Your task to perform on an android device: Clear the shopping cart on ebay.com. Add "asus zenbook" to the cart on ebay.com, then select checkout. Image 0: 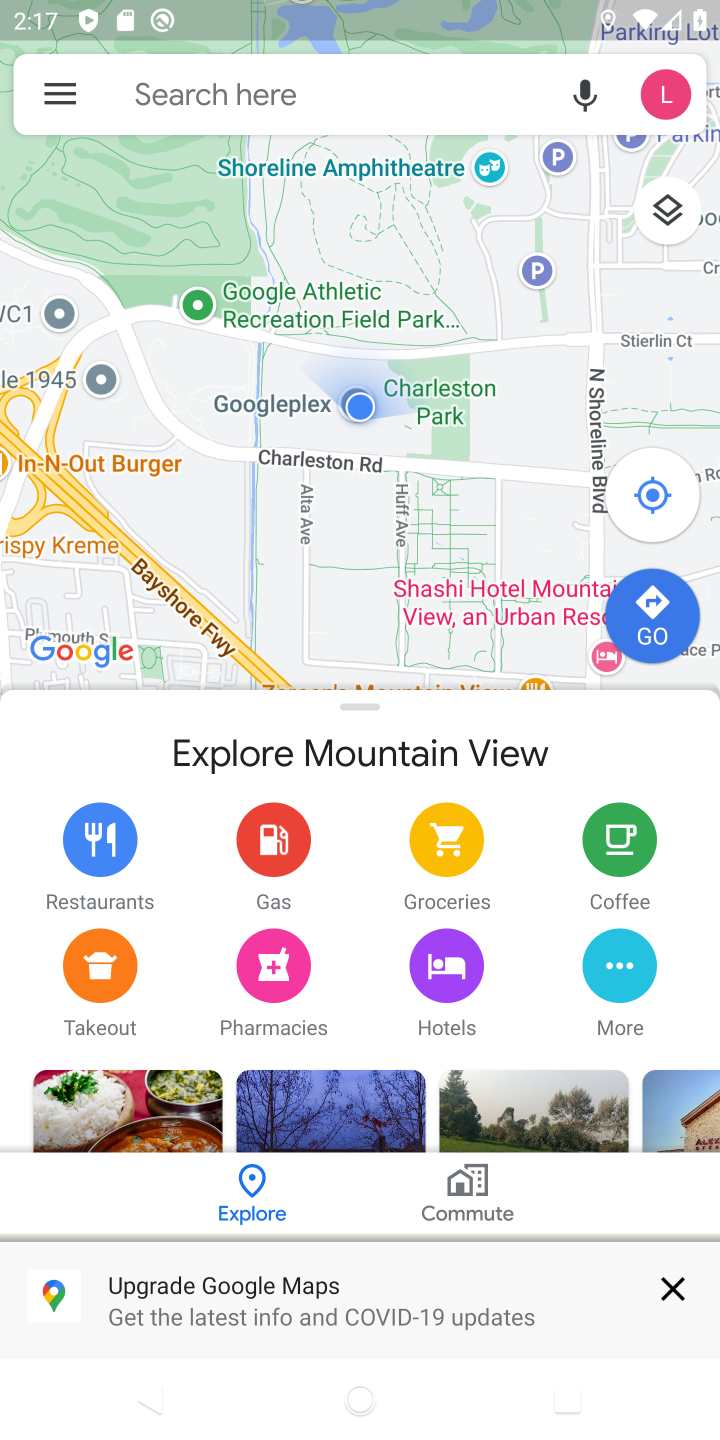
Step 0: press home button
Your task to perform on an android device: Clear the shopping cart on ebay.com. Add "asus zenbook" to the cart on ebay.com, then select checkout. Image 1: 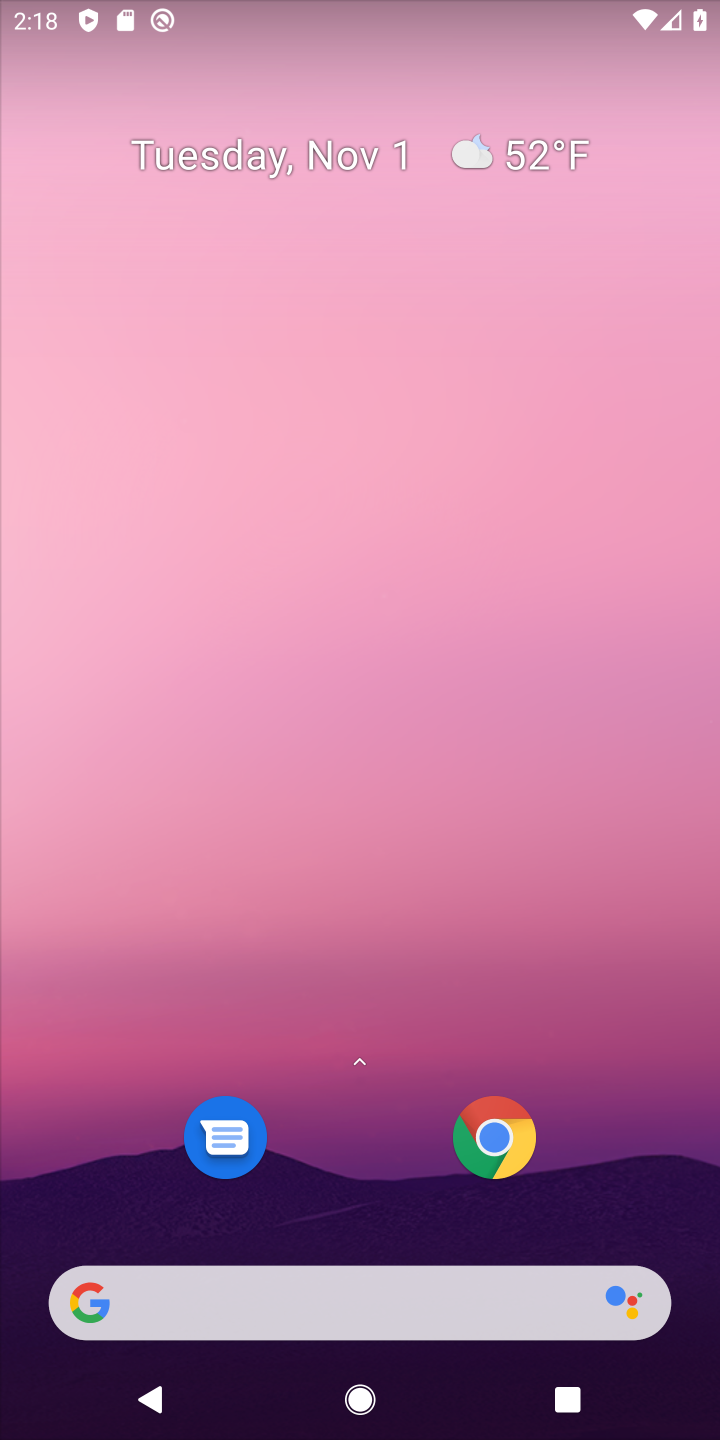
Step 1: click (310, 1316)
Your task to perform on an android device: Clear the shopping cart on ebay.com. Add "asus zenbook" to the cart on ebay.com, then select checkout. Image 2: 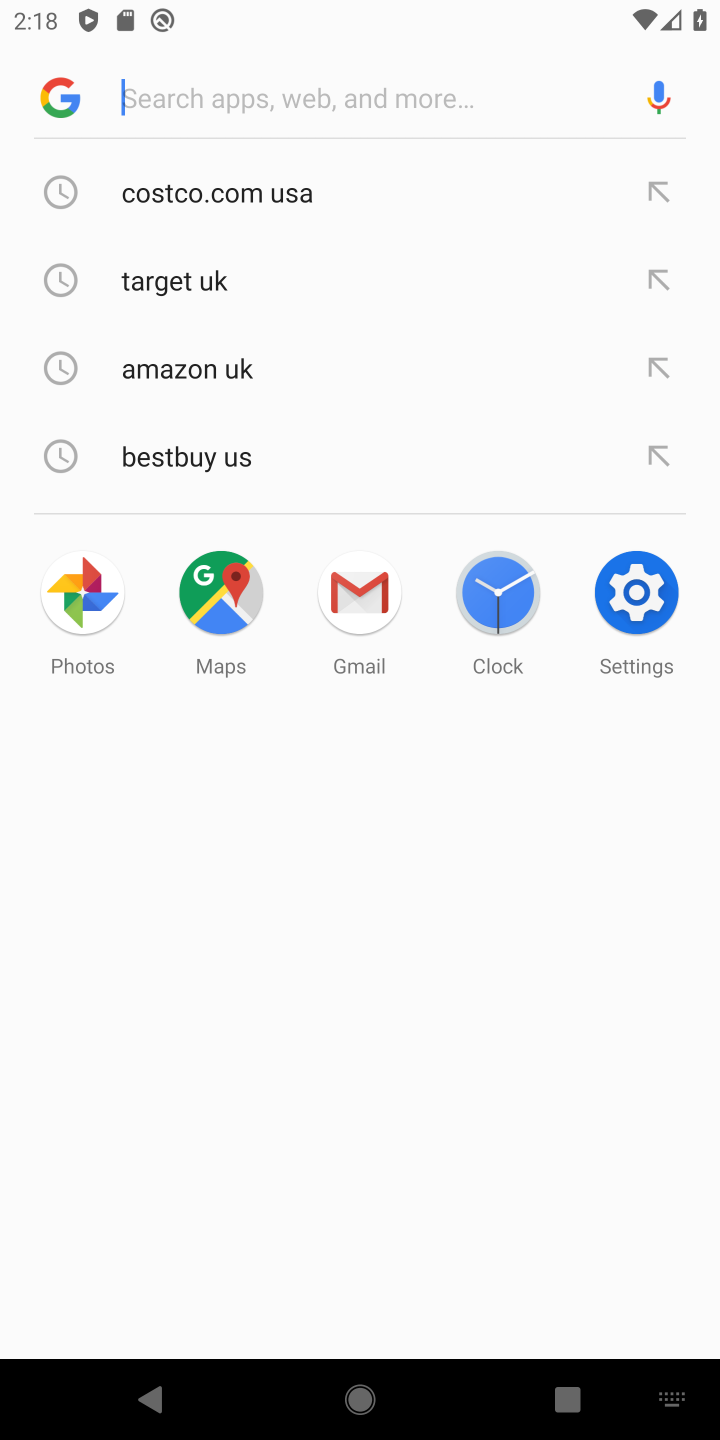
Step 2: type "asus zenbook"
Your task to perform on an android device: Clear the shopping cart on ebay.com. Add "asus zenbook" to the cart on ebay.com, then select checkout. Image 3: 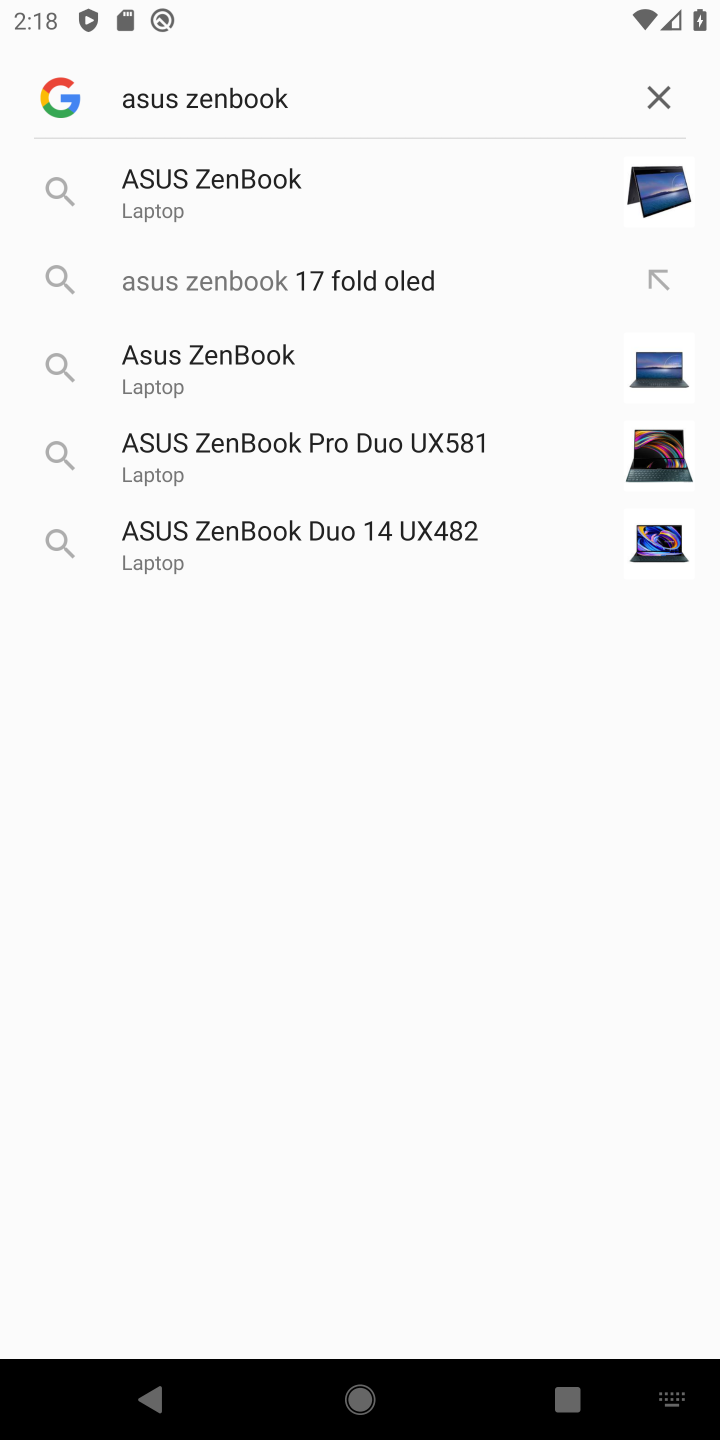
Step 3: click (271, 201)
Your task to perform on an android device: Clear the shopping cart on ebay.com. Add "asus zenbook" to the cart on ebay.com, then select checkout. Image 4: 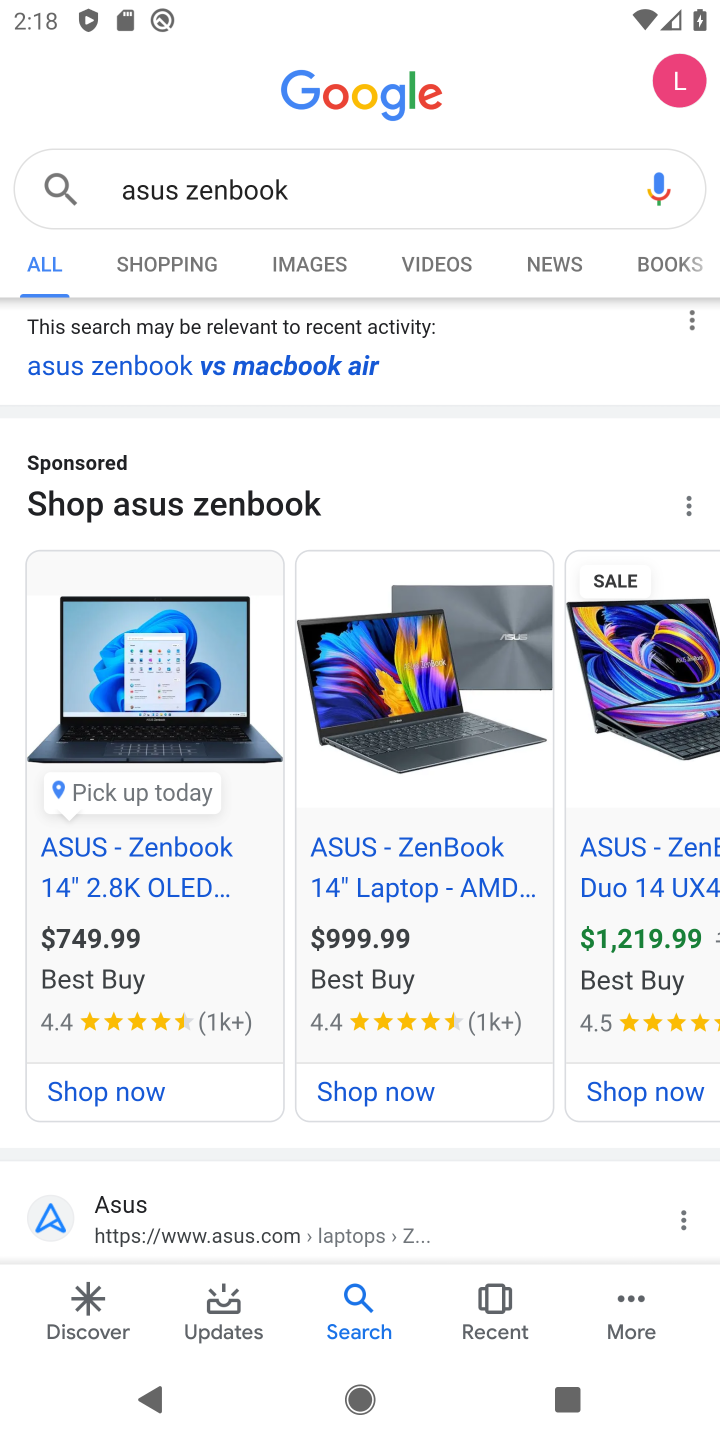
Step 4: drag from (384, 1196) to (376, 322)
Your task to perform on an android device: Clear the shopping cart on ebay.com. Add "asus zenbook" to the cart on ebay.com, then select checkout. Image 5: 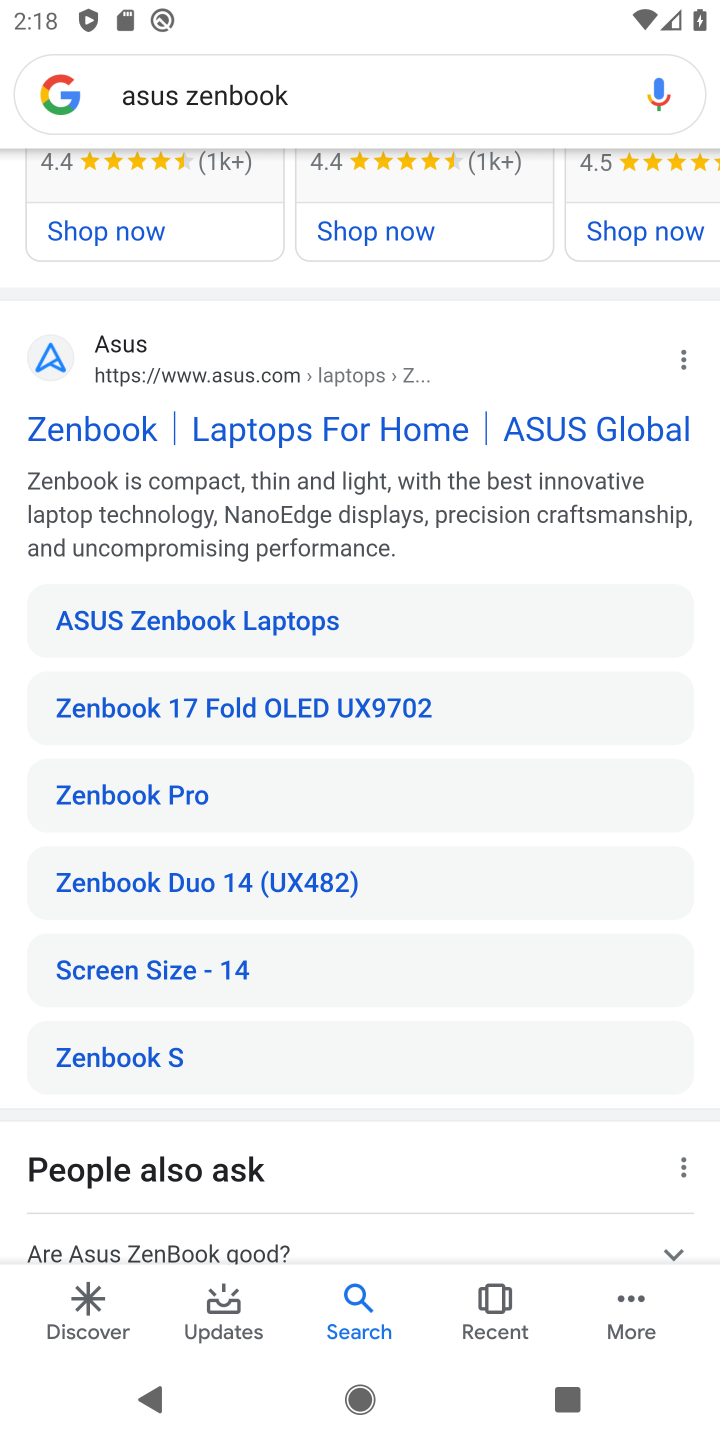
Step 5: drag from (437, 343) to (303, 707)
Your task to perform on an android device: Clear the shopping cart on ebay.com. Add "asus zenbook" to the cart on ebay.com, then select checkout. Image 6: 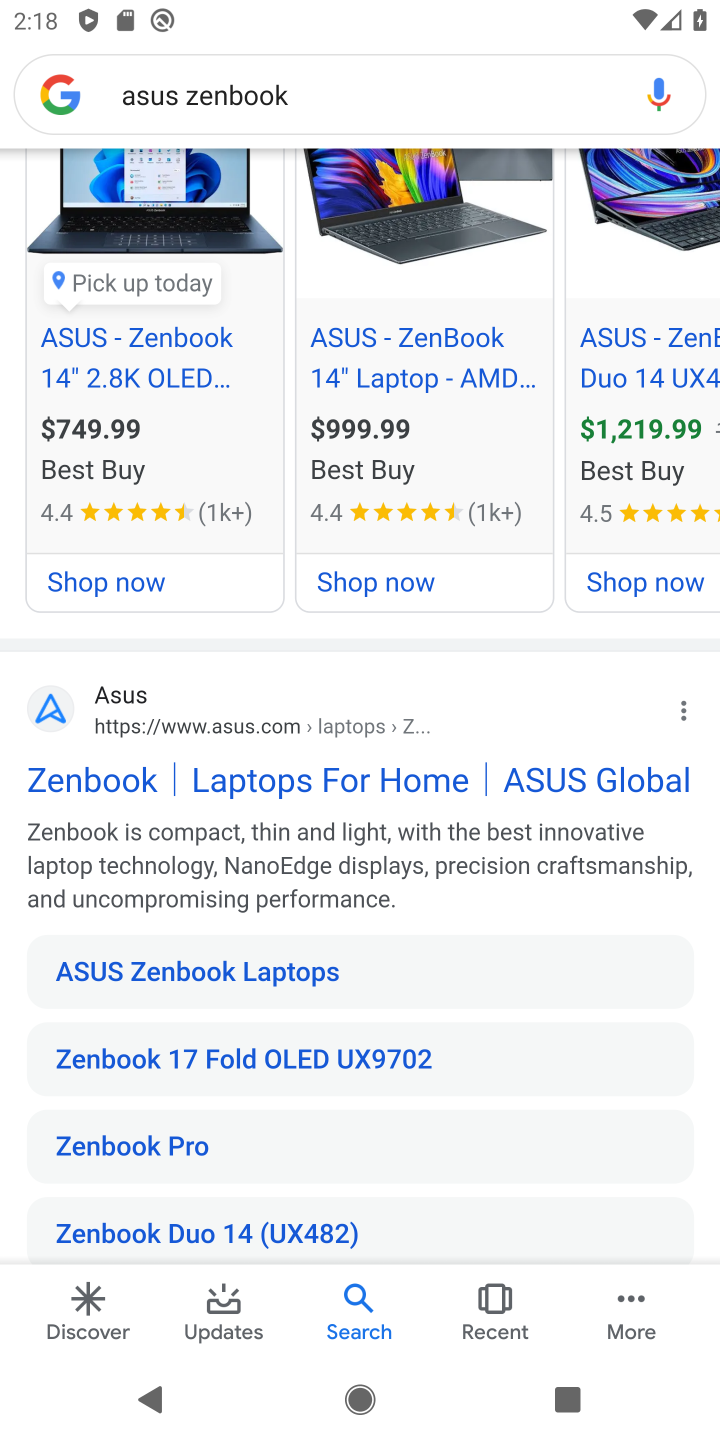
Step 6: drag from (652, 431) to (11, 389)
Your task to perform on an android device: Clear the shopping cart on ebay.com. Add "asus zenbook" to the cart on ebay.com, then select checkout. Image 7: 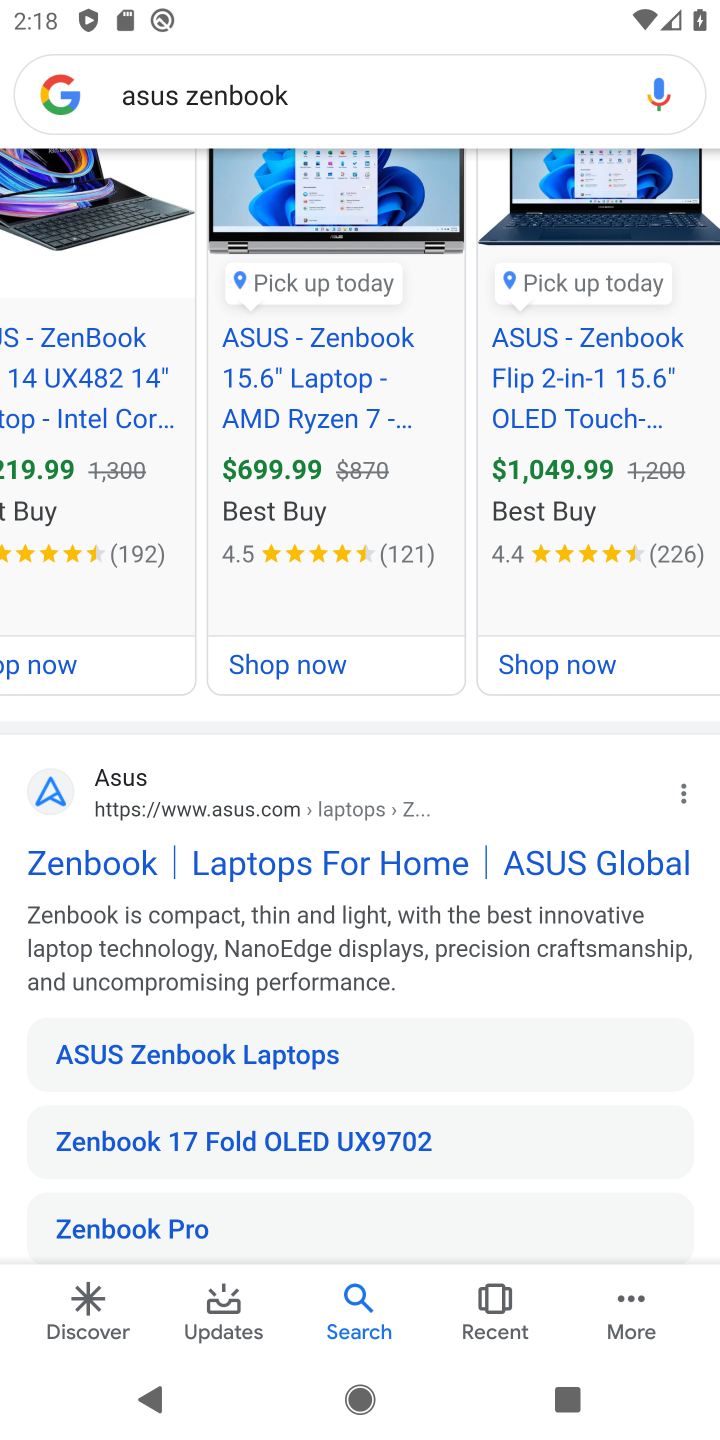
Step 7: drag from (679, 437) to (10, 425)
Your task to perform on an android device: Clear the shopping cart on ebay.com. Add "asus zenbook" to the cart on ebay.com, then select checkout. Image 8: 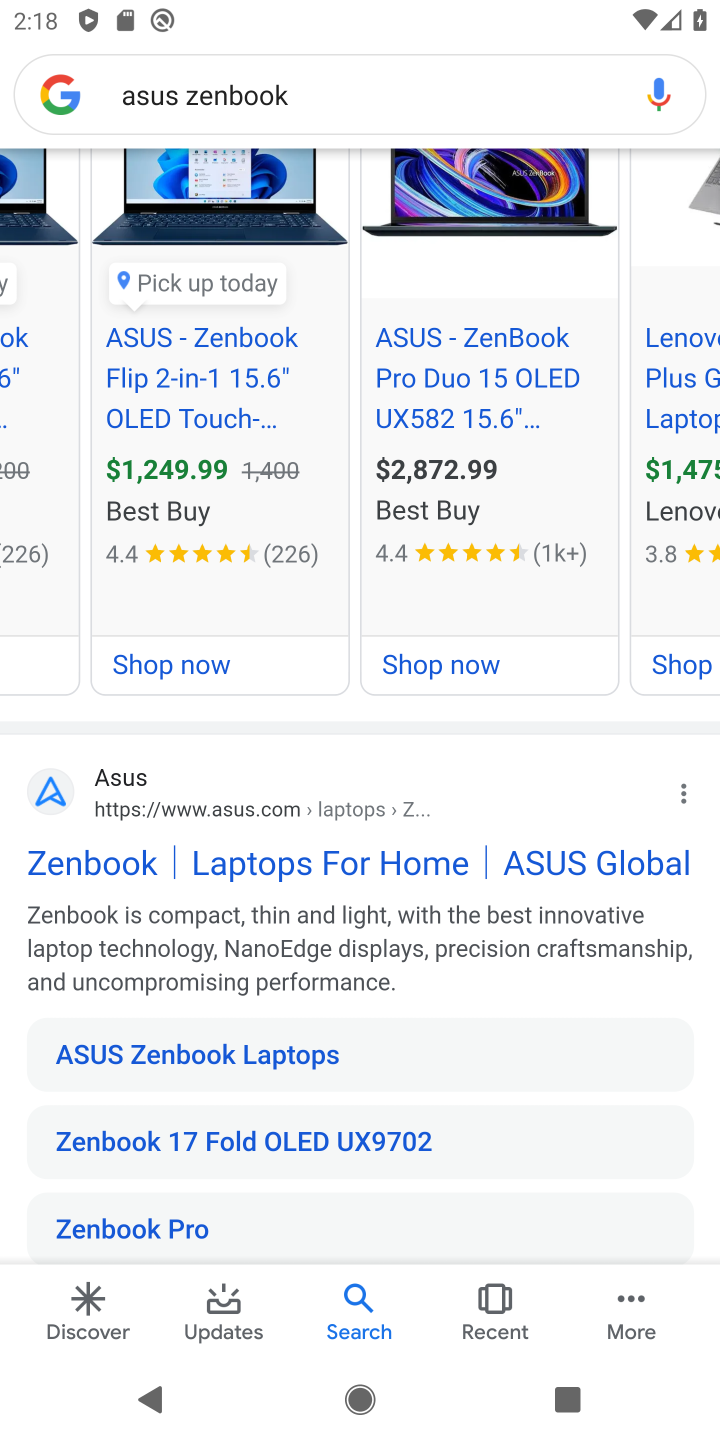
Step 8: drag from (657, 468) to (27, 535)
Your task to perform on an android device: Clear the shopping cart on ebay.com. Add "asus zenbook" to the cart on ebay.com, then select checkout. Image 9: 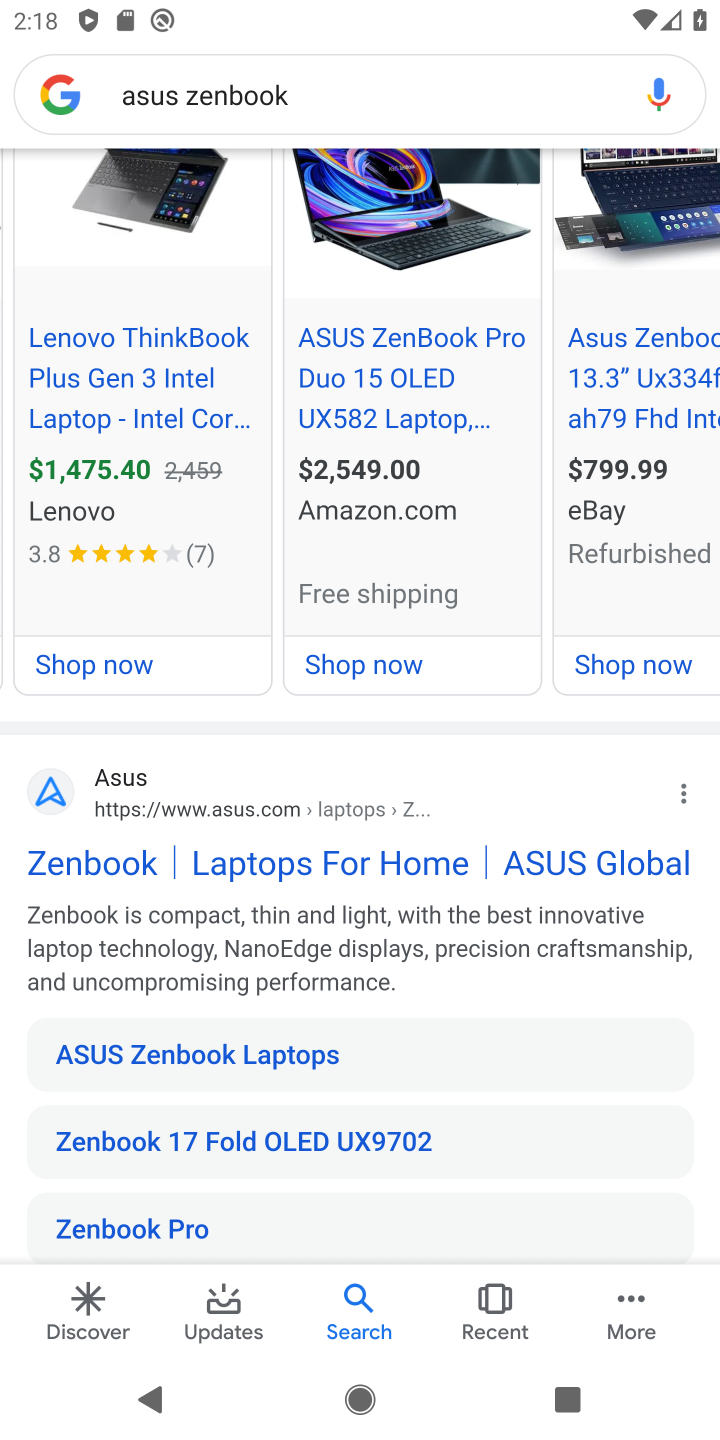
Step 9: click (629, 412)
Your task to perform on an android device: Clear the shopping cart on ebay.com. Add "asus zenbook" to the cart on ebay.com, then select checkout. Image 10: 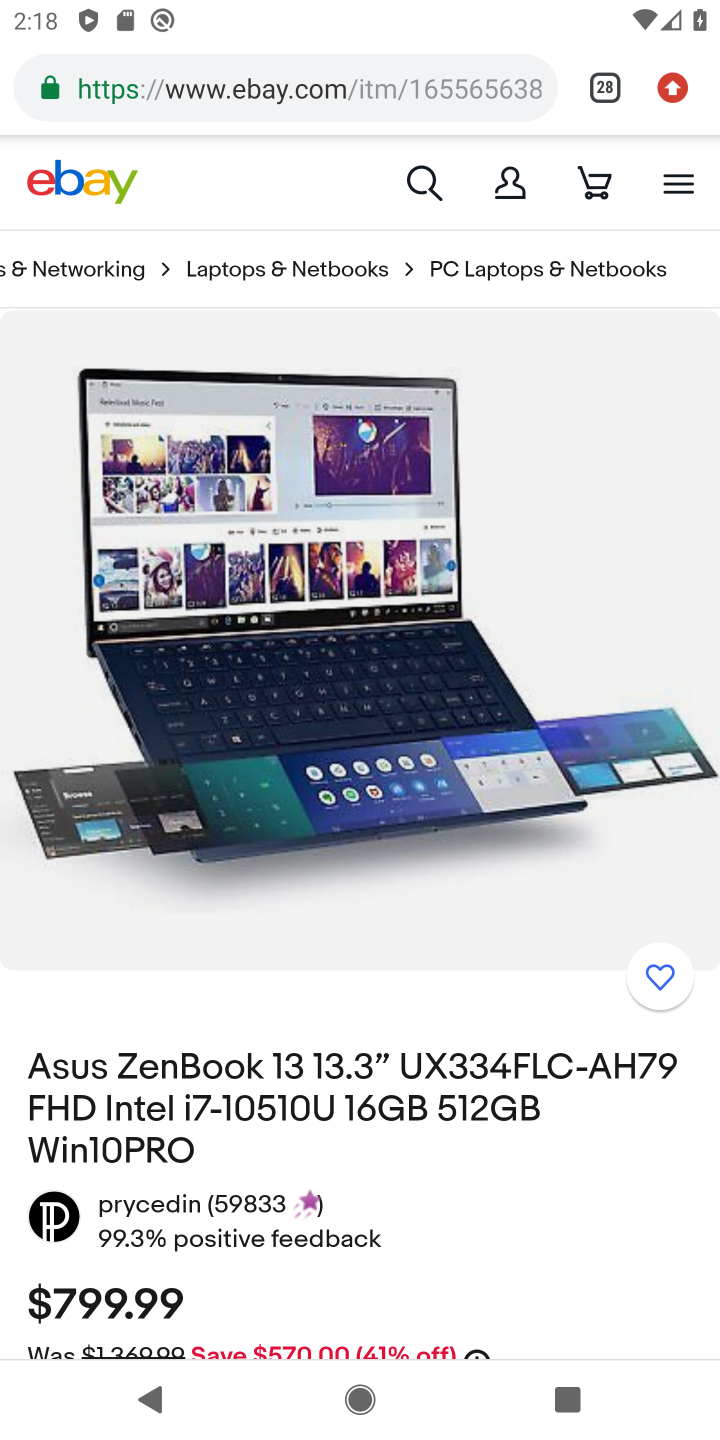
Step 10: drag from (551, 1015) to (397, 334)
Your task to perform on an android device: Clear the shopping cart on ebay.com. Add "asus zenbook" to the cart on ebay.com, then select checkout. Image 11: 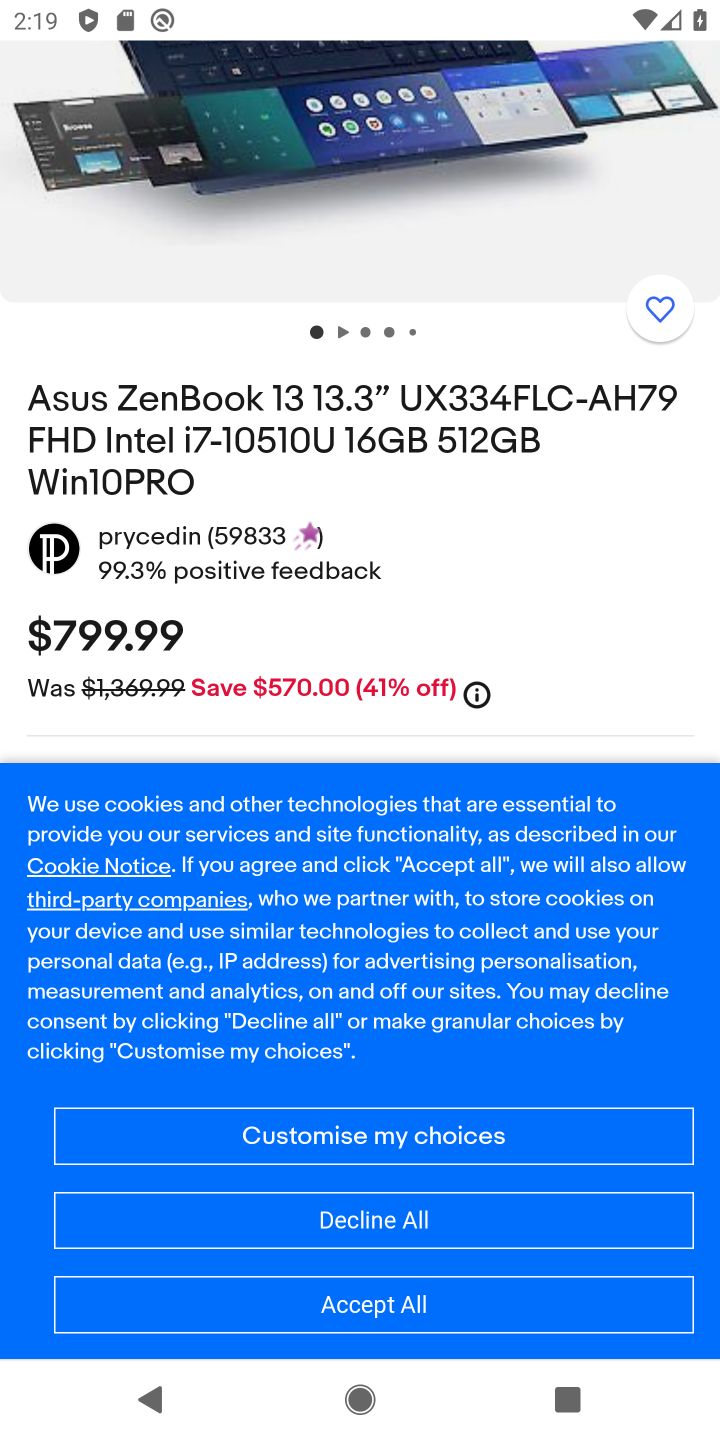
Step 11: click (381, 1291)
Your task to perform on an android device: Clear the shopping cart on ebay.com. Add "asus zenbook" to the cart on ebay.com, then select checkout. Image 12: 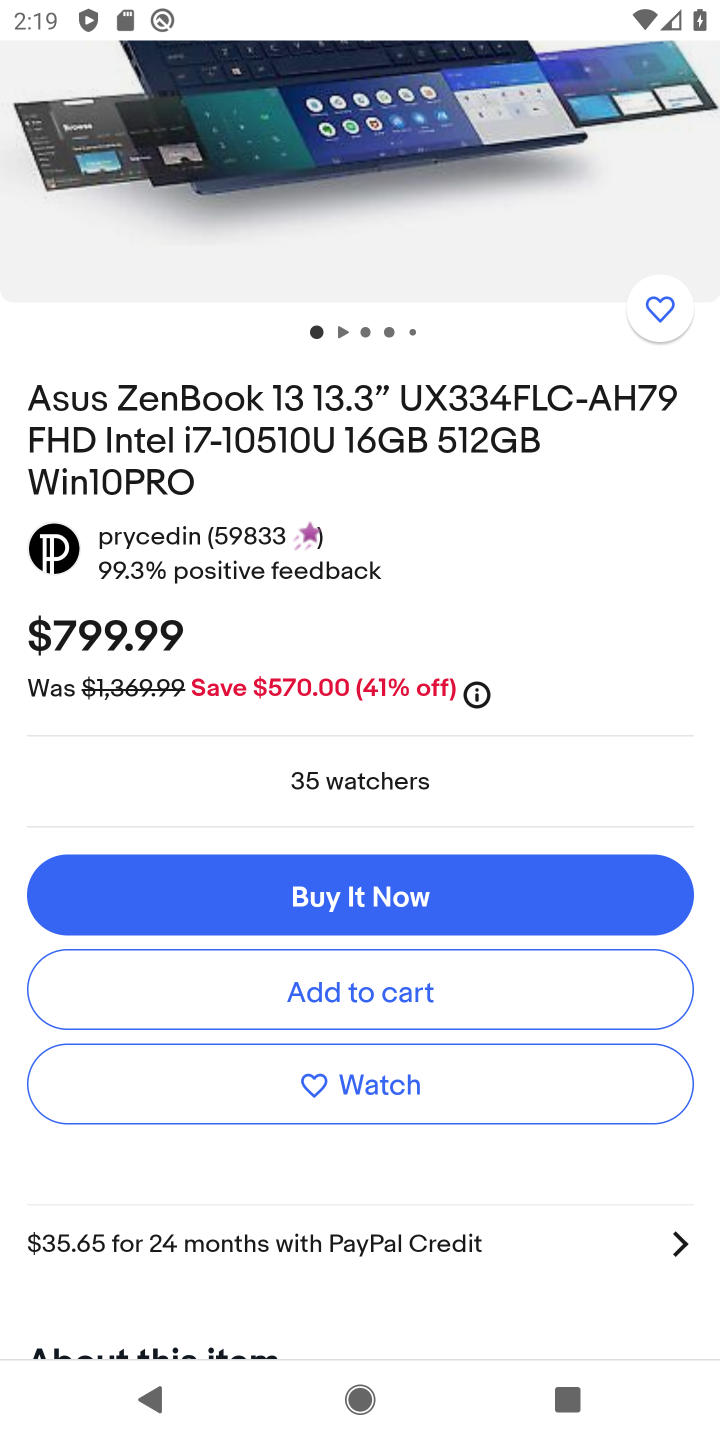
Step 12: click (352, 993)
Your task to perform on an android device: Clear the shopping cart on ebay.com. Add "asus zenbook" to the cart on ebay.com, then select checkout. Image 13: 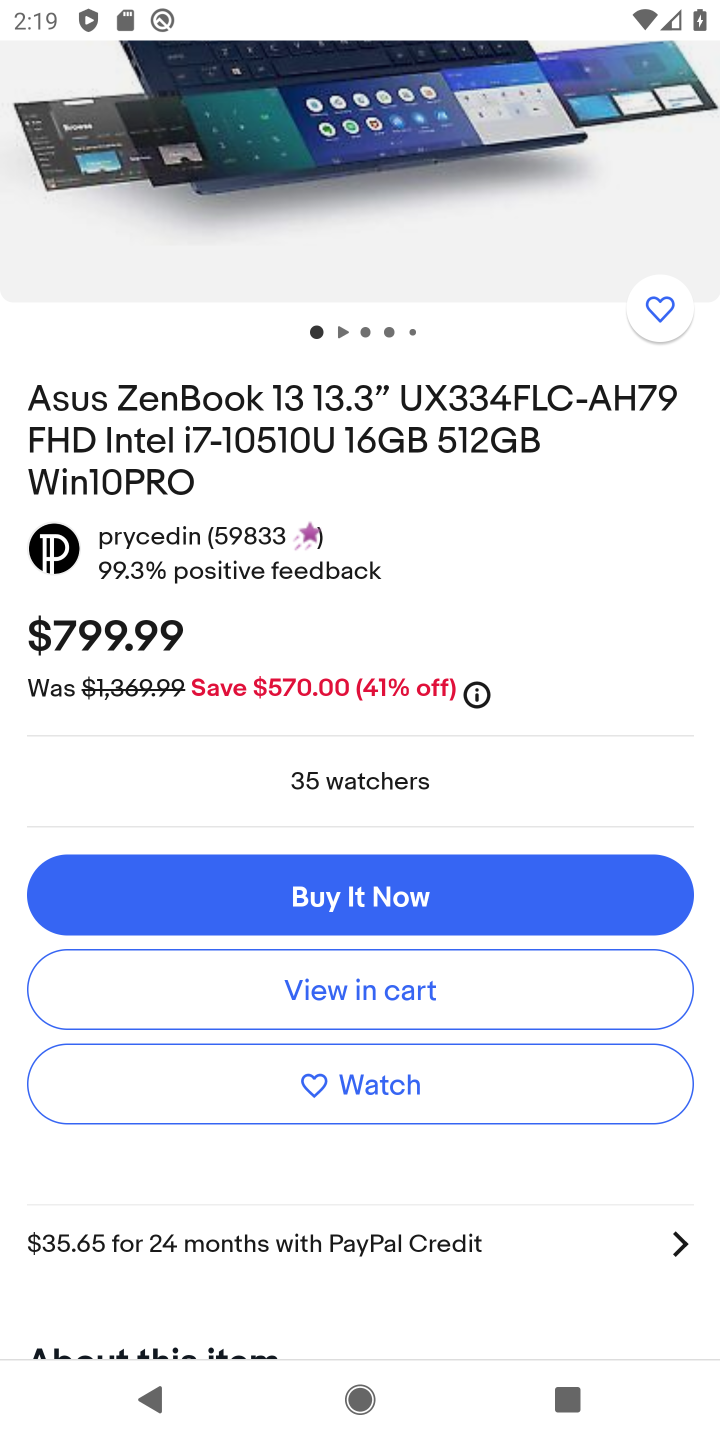
Step 13: task complete